Your task to perform on an android device: turn on data saver in the chrome app Image 0: 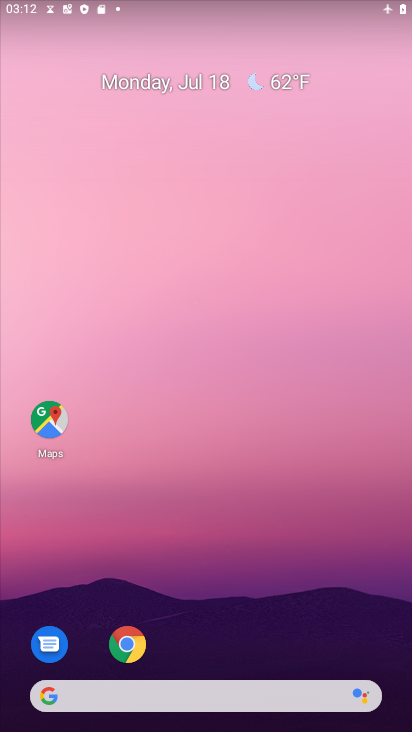
Step 0: drag from (255, 451) to (227, 236)
Your task to perform on an android device: turn on data saver in the chrome app Image 1: 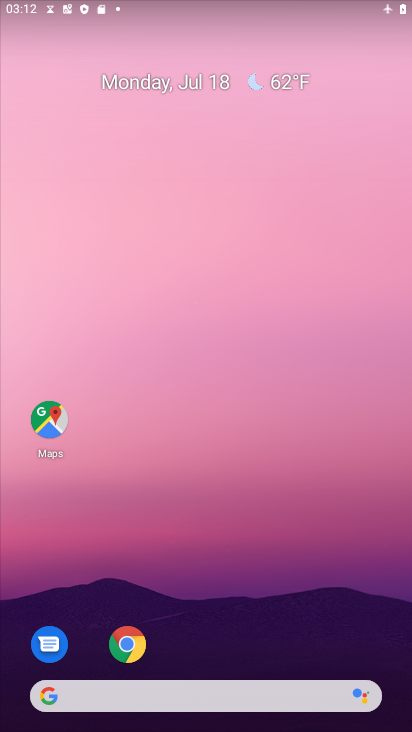
Step 1: drag from (228, 383) to (219, 287)
Your task to perform on an android device: turn on data saver in the chrome app Image 2: 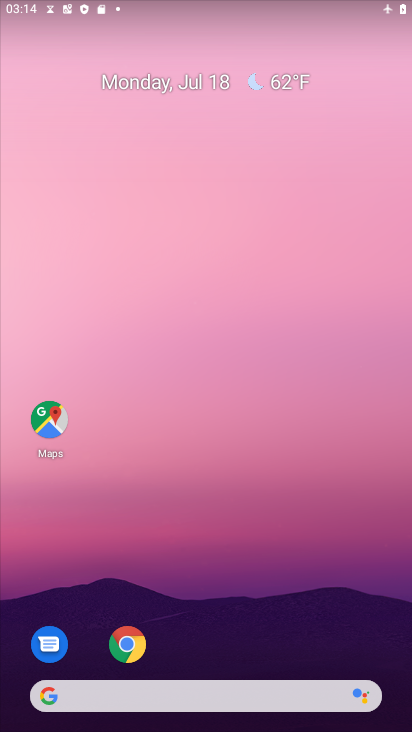
Step 2: drag from (131, 396) to (131, 326)
Your task to perform on an android device: turn on data saver in the chrome app Image 3: 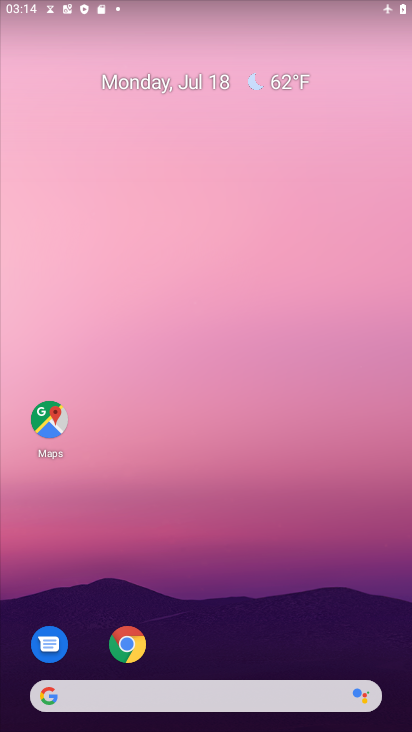
Step 3: drag from (160, 628) to (191, 315)
Your task to perform on an android device: turn on data saver in the chrome app Image 4: 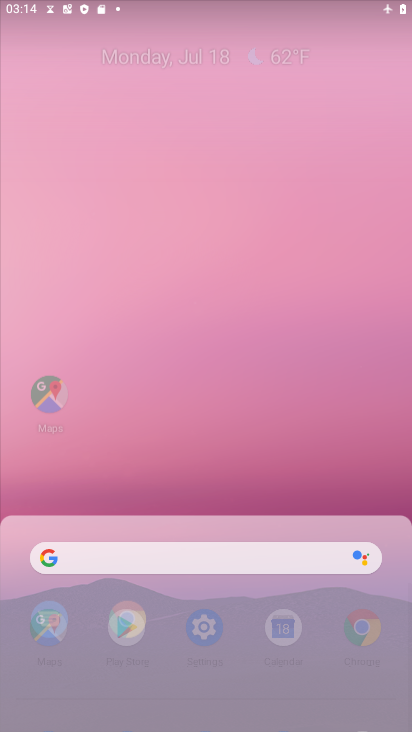
Step 4: drag from (305, 511) to (229, 153)
Your task to perform on an android device: turn on data saver in the chrome app Image 5: 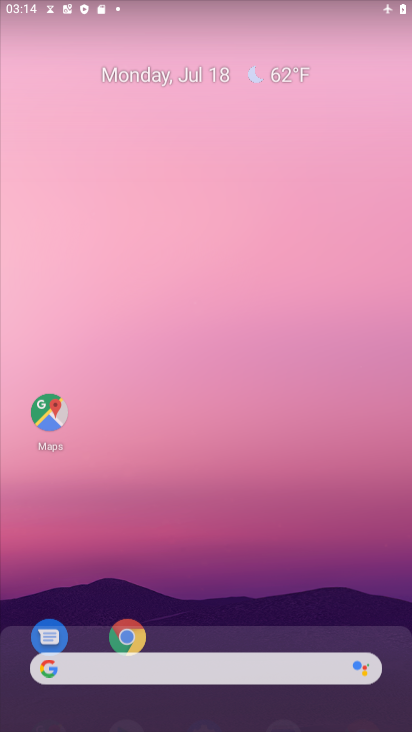
Step 5: drag from (239, 192) to (218, 110)
Your task to perform on an android device: turn on data saver in the chrome app Image 6: 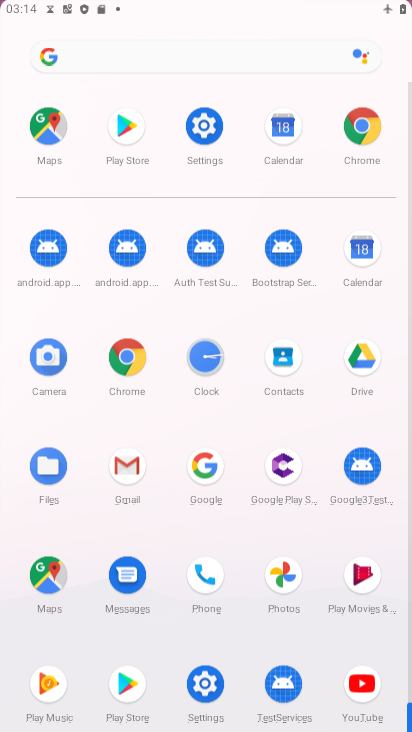
Step 6: drag from (279, 587) to (204, 238)
Your task to perform on an android device: turn on data saver in the chrome app Image 7: 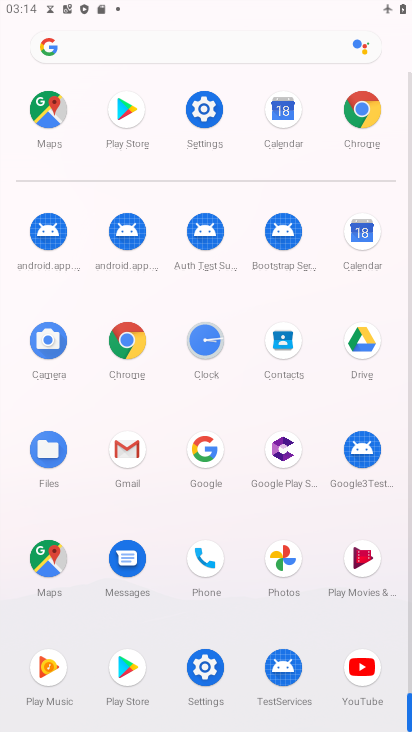
Step 7: click (342, 119)
Your task to perform on an android device: turn on data saver in the chrome app Image 8: 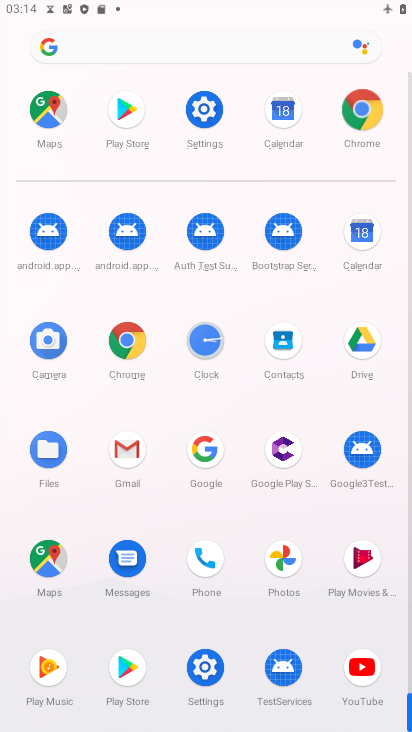
Step 8: click (353, 101)
Your task to perform on an android device: turn on data saver in the chrome app Image 9: 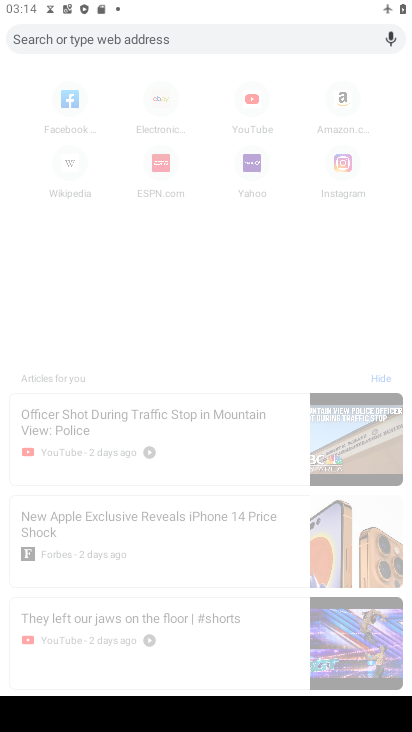
Step 9: press back button
Your task to perform on an android device: turn on data saver in the chrome app Image 10: 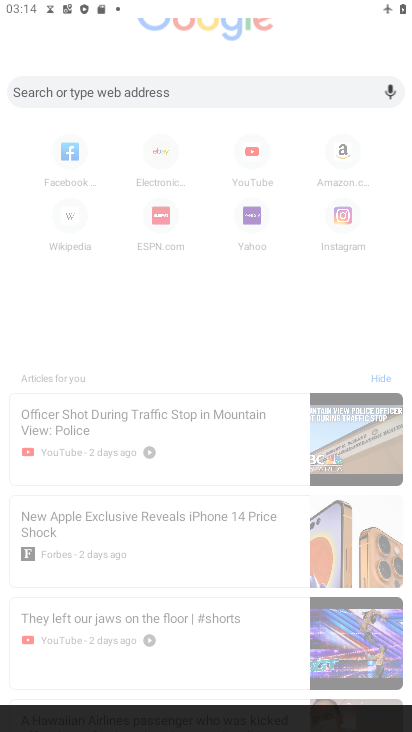
Step 10: press back button
Your task to perform on an android device: turn on data saver in the chrome app Image 11: 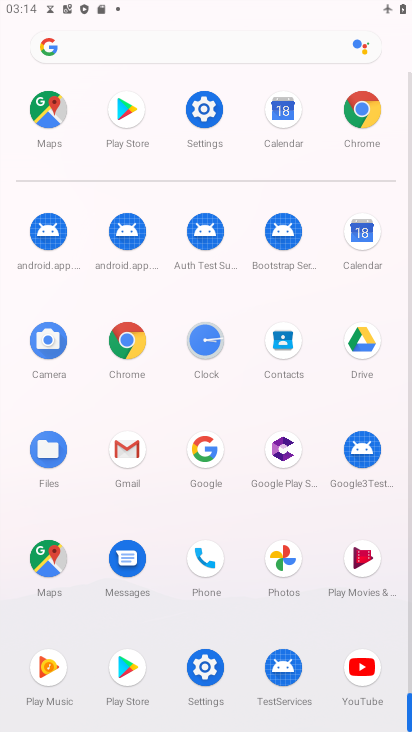
Step 11: click (366, 99)
Your task to perform on an android device: turn on data saver in the chrome app Image 12: 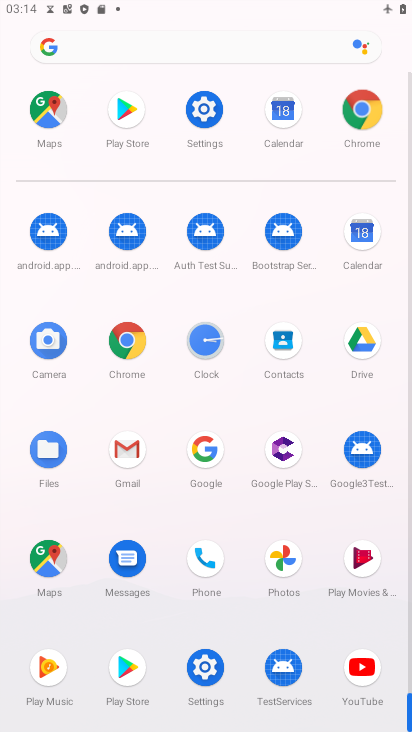
Step 12: click (362, 107)
Your task to perform on an android device: turn on data saver in the chrome app Image 13: 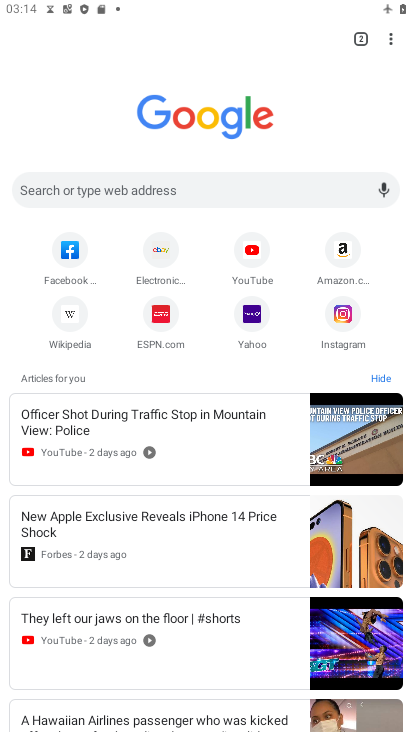
Step 13: drag from (387, 39) to (247, 344)
Your task to perform on an android device: turn on data saver in the chrome app Image 14: 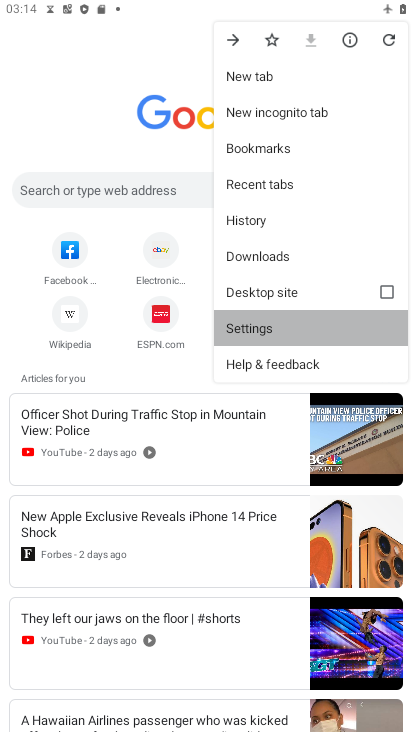
Step 14: click (251, 331)
Your task to perform on an android device: turn on data saver in the chrome app Image 15: 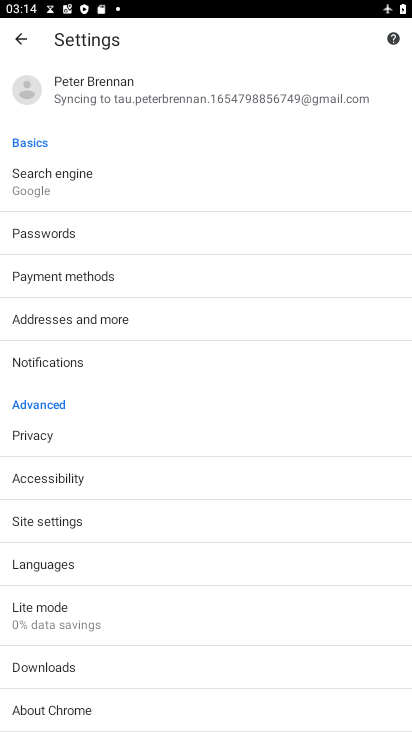
Step 15: click (58, 603)
Your task to perform on an android device: turn on data saver in the chrome app Image 16: 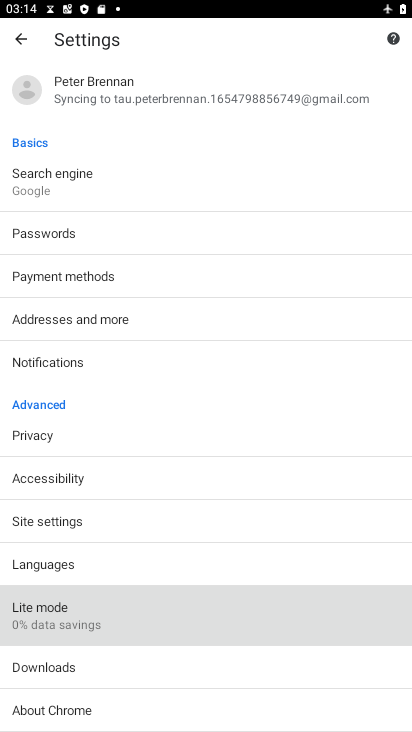
Step 16: click (67, 605)
Your task to perform on an android device: turn on data saver in the chrome app Image 17: 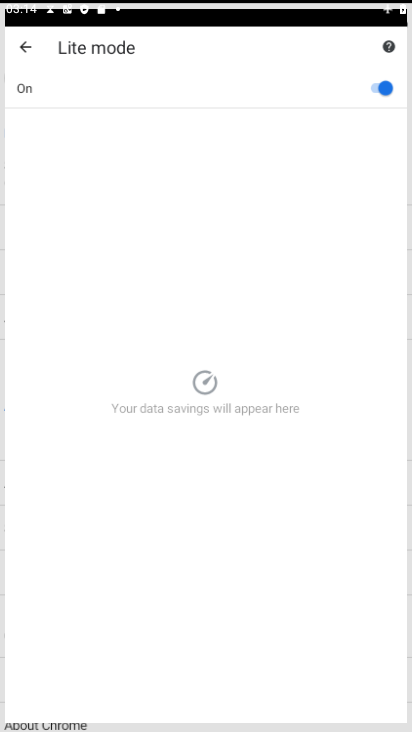
Step 17: click (68, 606)
Your task to perform on an android device: turn on data saver in the chrome app Image 18: 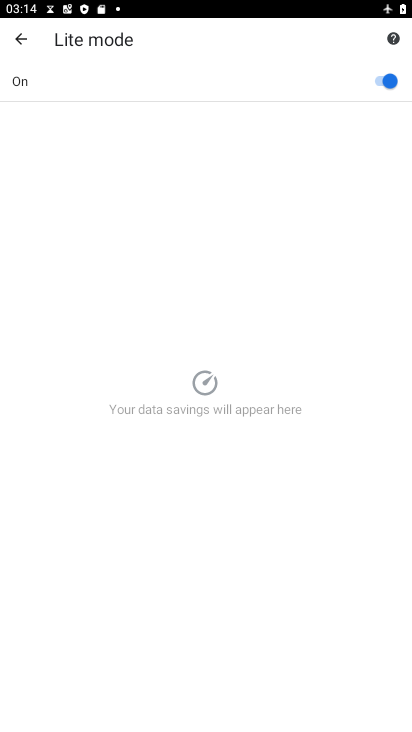
Step 18: task complete